Your task to perform on an android device: Open calendar and show me the first week of next month Image 0: 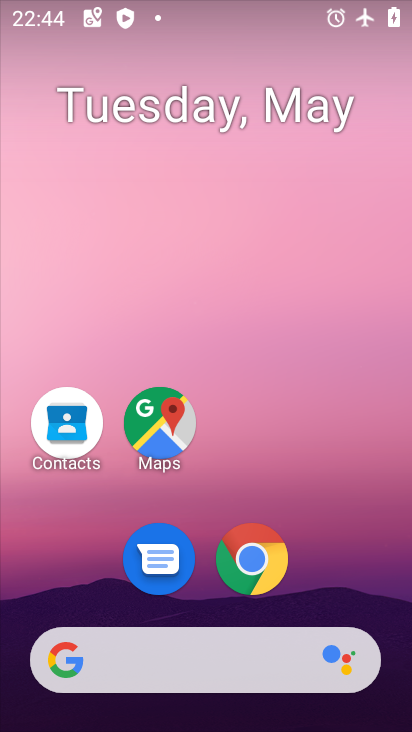
Step 0: drag from (345, 570) to (229, 81)
Your task to perform on an android device: Open calendar and show me the first week of next month Image 1: 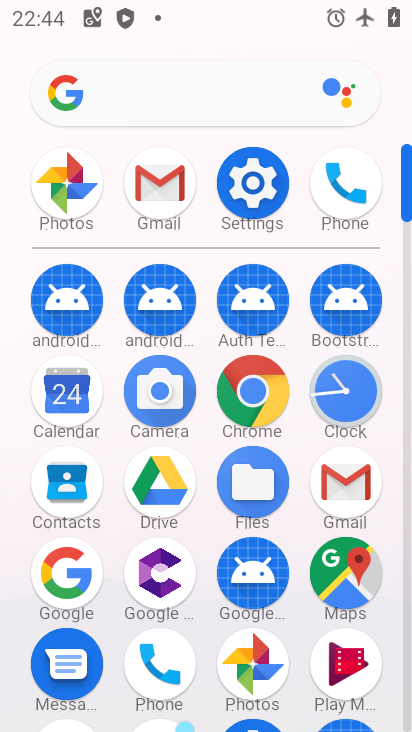
Step 1: click (68, 465)
Your task to perform on an android device: Open calendar and show me the first week of next month Image 2: 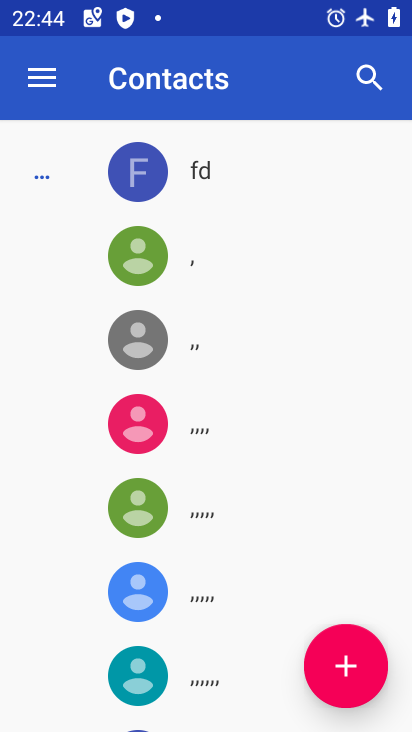
Step 2: press home button
Your task to perform on an android device: Open calendar and show me the first week of next month Image 3: 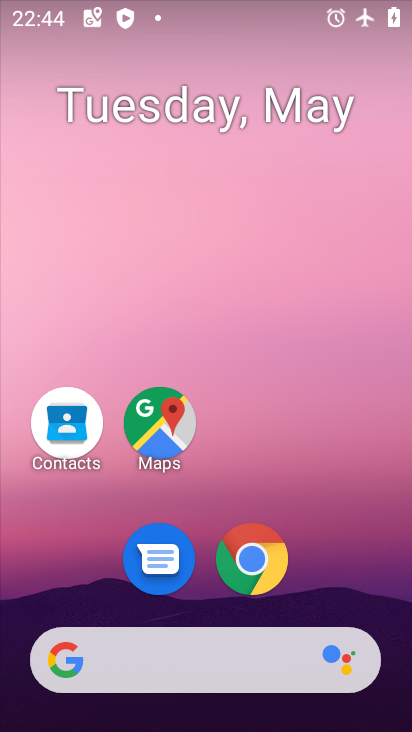
Step 3: drag from (350, 554) to (278, 151)
Your task to perform on an android device: Open calendar and show me the first week of next month Image 4: 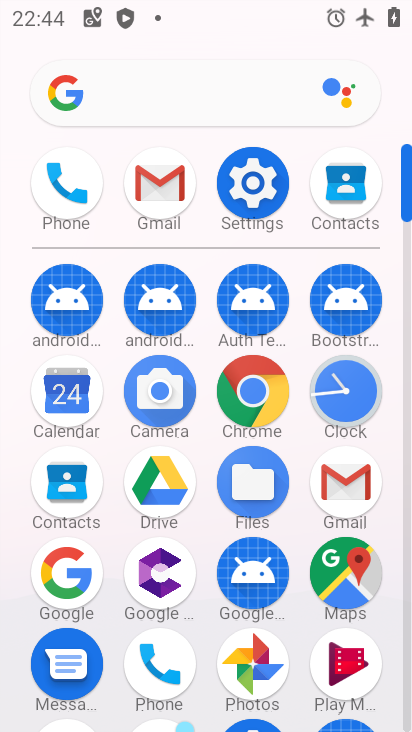
Step 4: click (69, 418)
Your task to perform on an android device: Open calendar and show me the first week of next month Image 5: 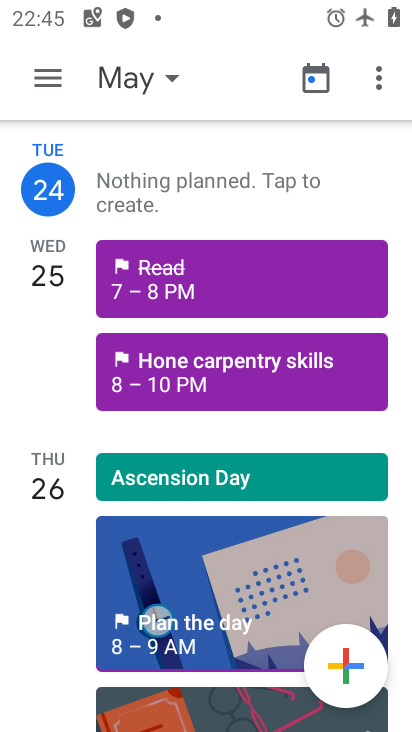
Step 5: task complete